Your task to perform on an android device: open wifi settings Image 0: 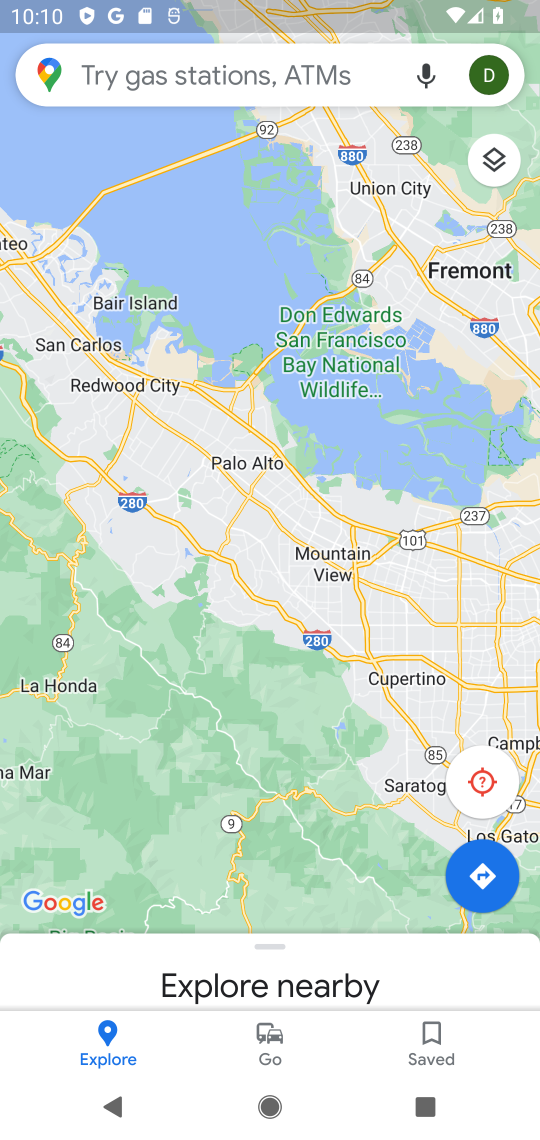
Step 0: press home button
Your task to perform on an android device: open wifi settings Image 1: 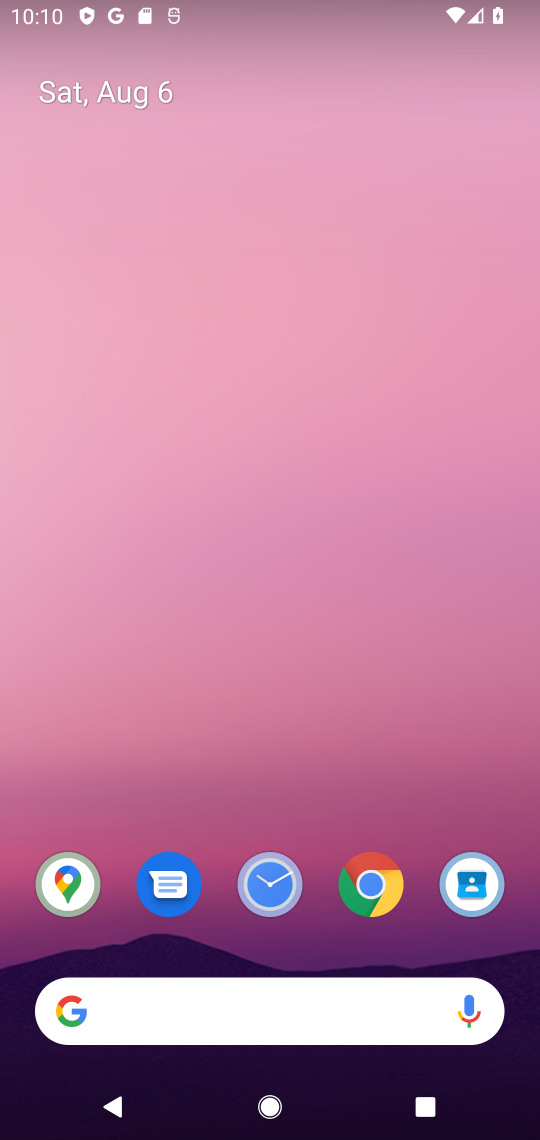
Step 1: drag from (420, 947) to (364, 75)
Your task to perform on an android device: open wifi settings Image 2: 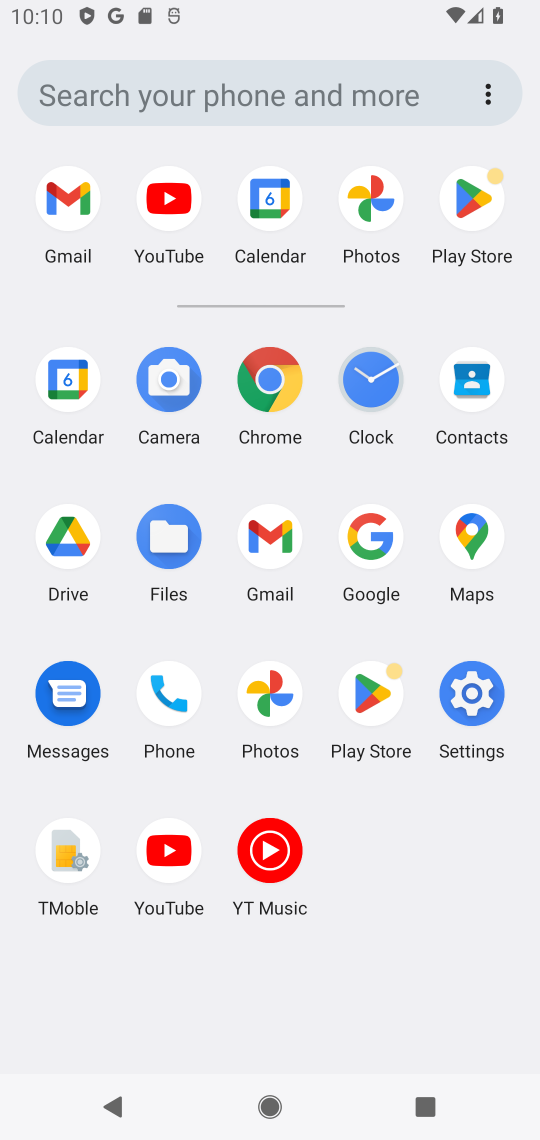
Step 2: click (474, 693)
Your task to perform on an android device: open wifi settings Image 3: 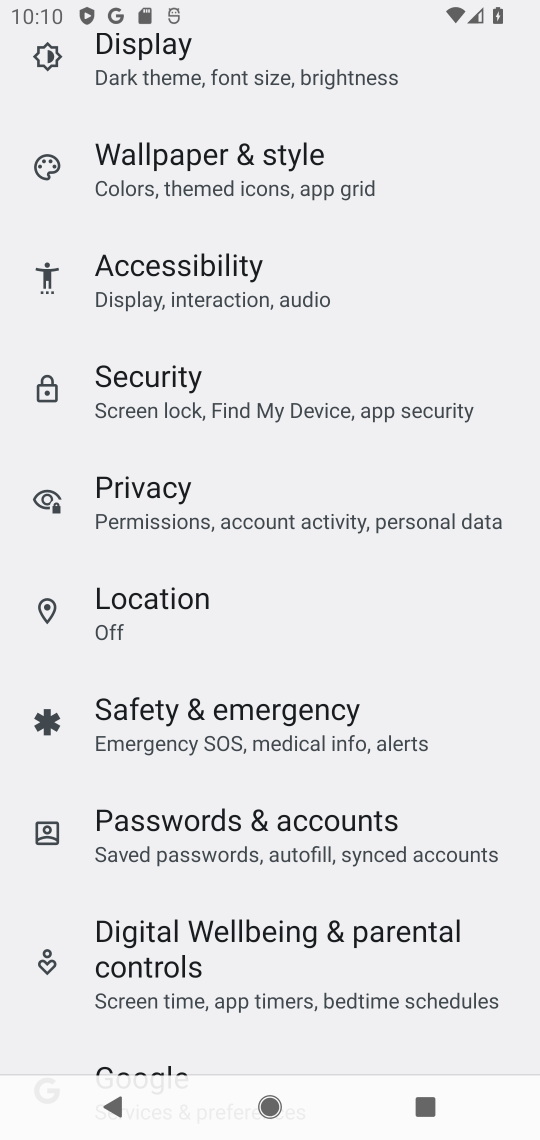
Step 3: drag from (460, 243) to (468, 751)
Your task to perform on an android device: open wifi settings Image 4: 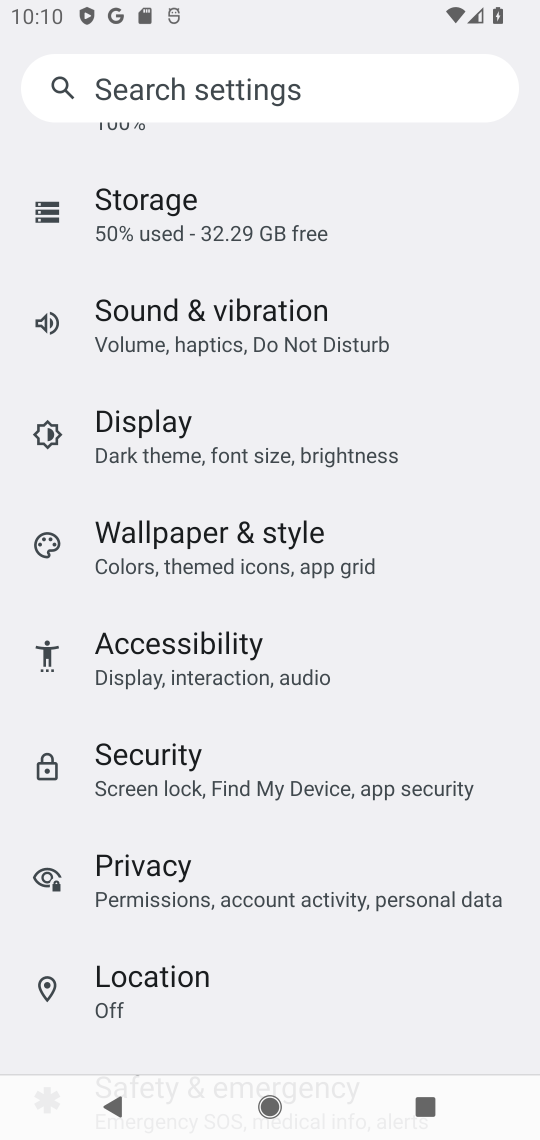
Step 4: drag from (457, 219) to (484, 748)
Your task to perform on an android device: open wifi settings Image 5: 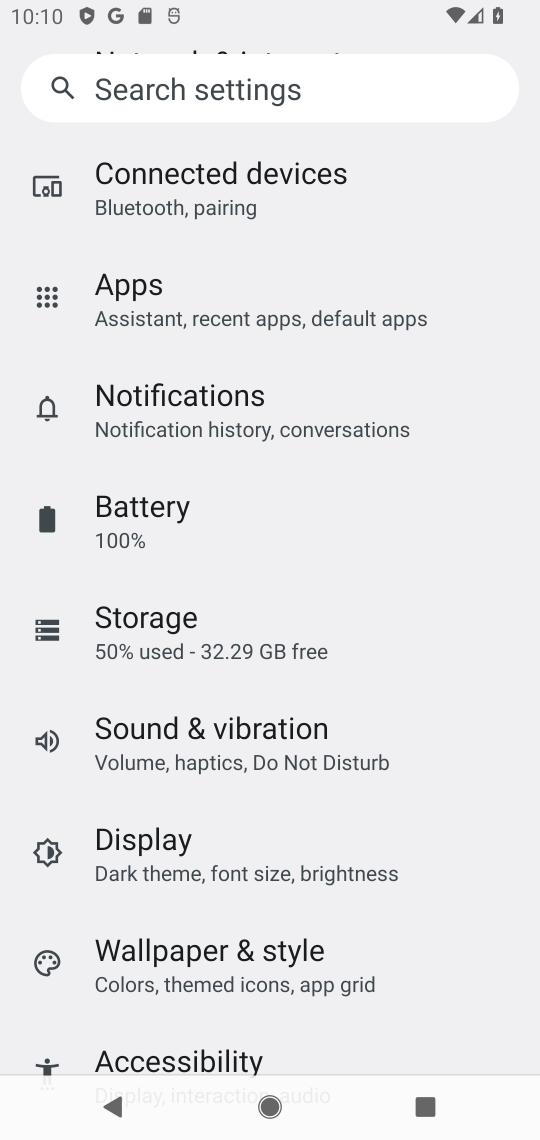
Step 5: drag from (453, 217) to (486, 788)
Your task to perform on an android device: open wifi settings Image 6: 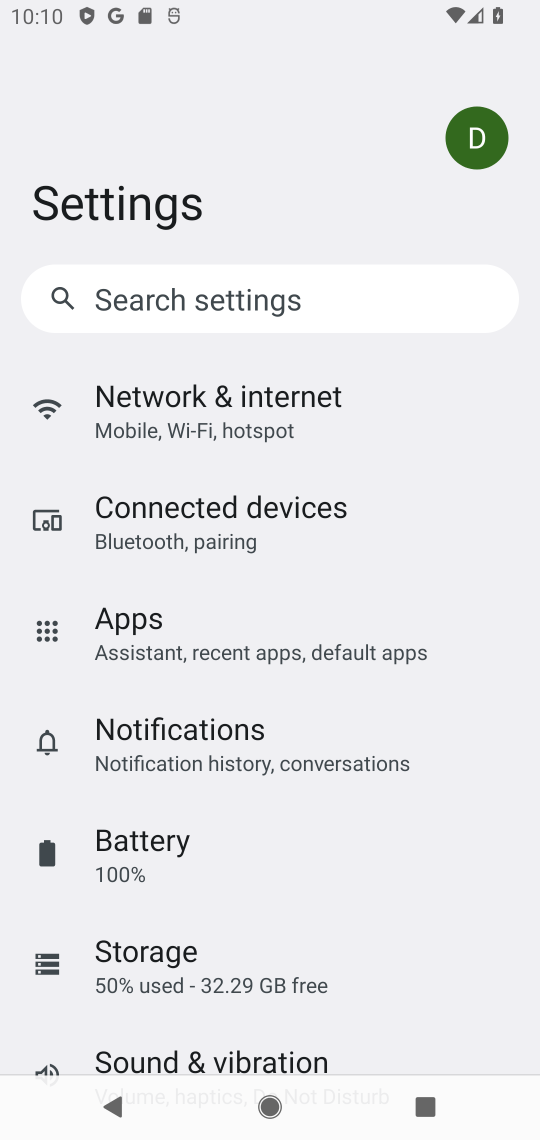
Step 6: click (161, 408)
Your task to perform on an android device: open wifi settings Image 7: 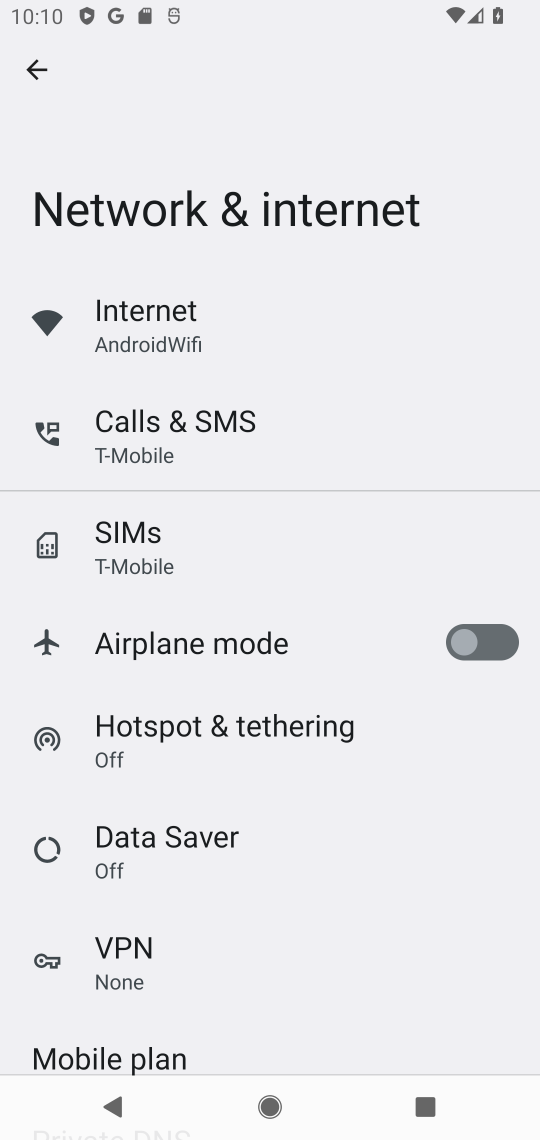
Step 7: click (142, 317)
Your task to perform on an android device: open wifi settings Image 8: 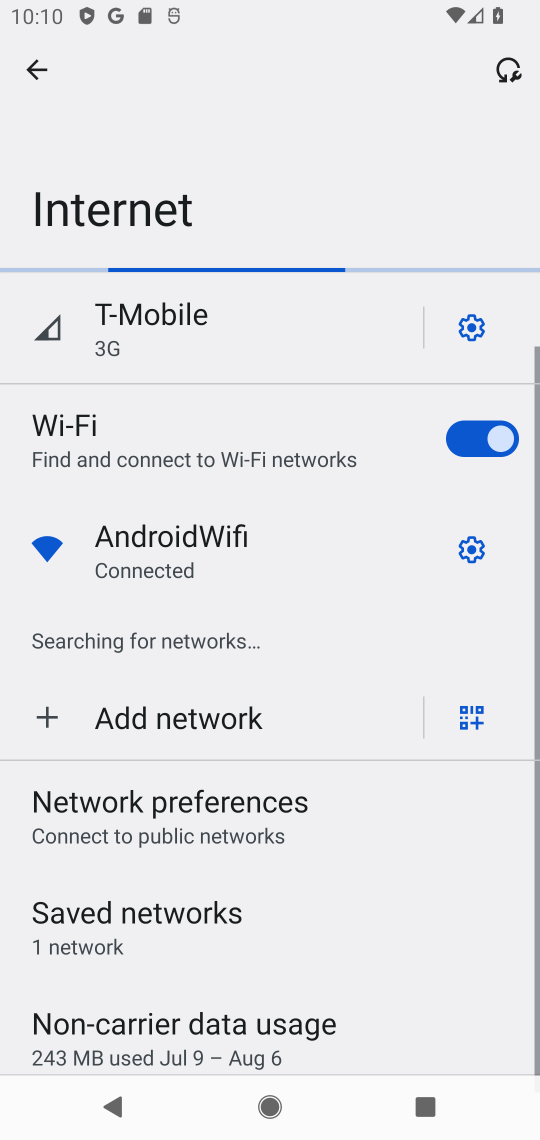
Step 8: click (471, 552)
Your task to perform on an android device: open wifi settings Image 9: 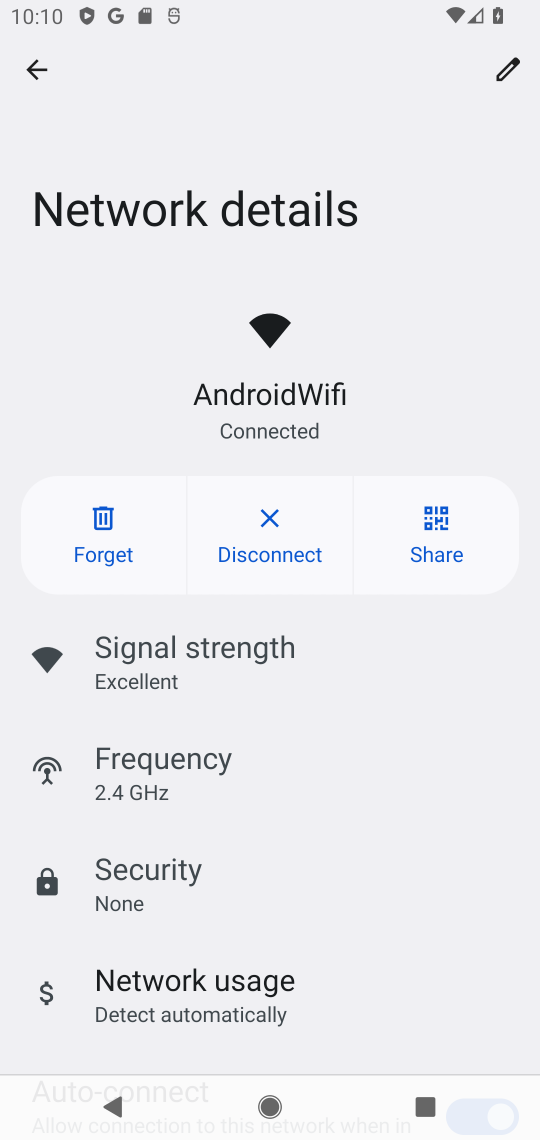
Step 9: task complete